Your task to perform on an android device: Go to settings Image 0: 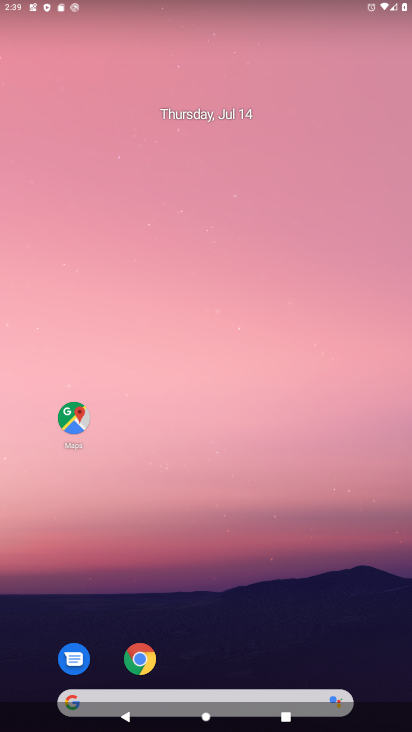
Step 0: press home button
Your task to perform on an android device: Go to settings Image 1: 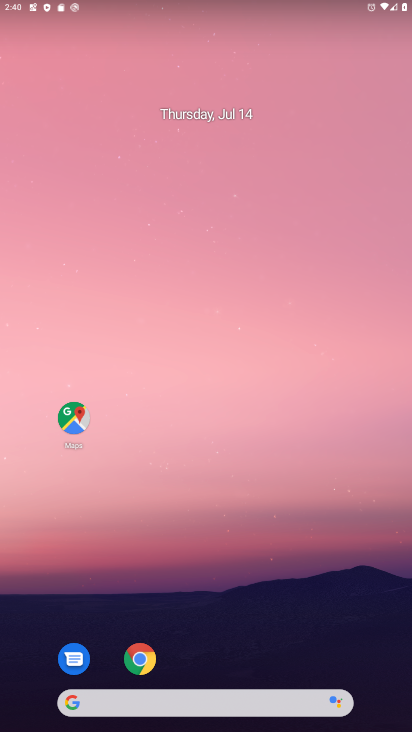
Step 1: drag from (222, 664) to (167, 160)
Your task to perform on an android device: Go to settings Image 2: 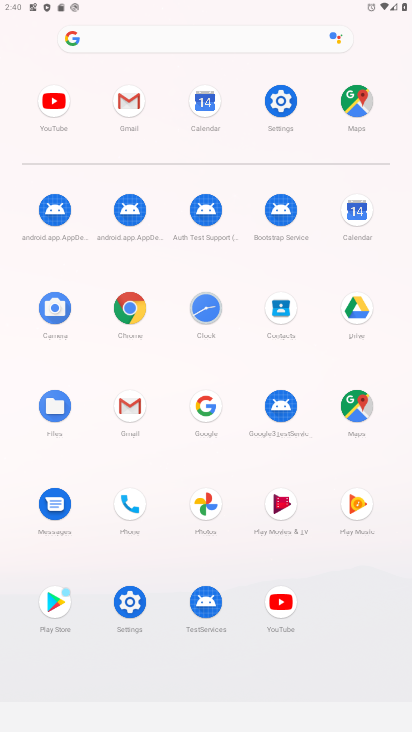
Step 2: click (278, 107)
Your task to perform on an android device: Go to settings Image 3: 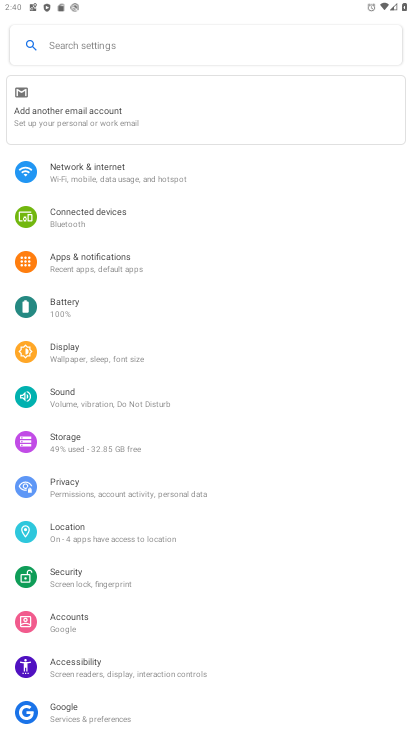
Step 3: task complete